Your task to perform on an android device: change notification settings in the gmail app Image 0: 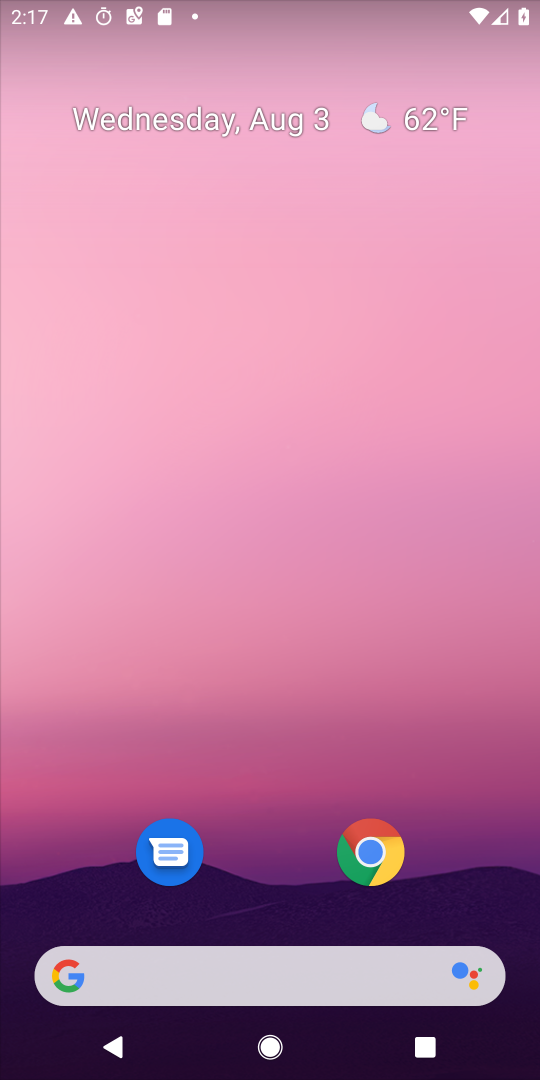
Step 0: drag from (511, 883) to (95, 69)
Your task to perform on an android device: change notification settings in the gmail app Image 1: 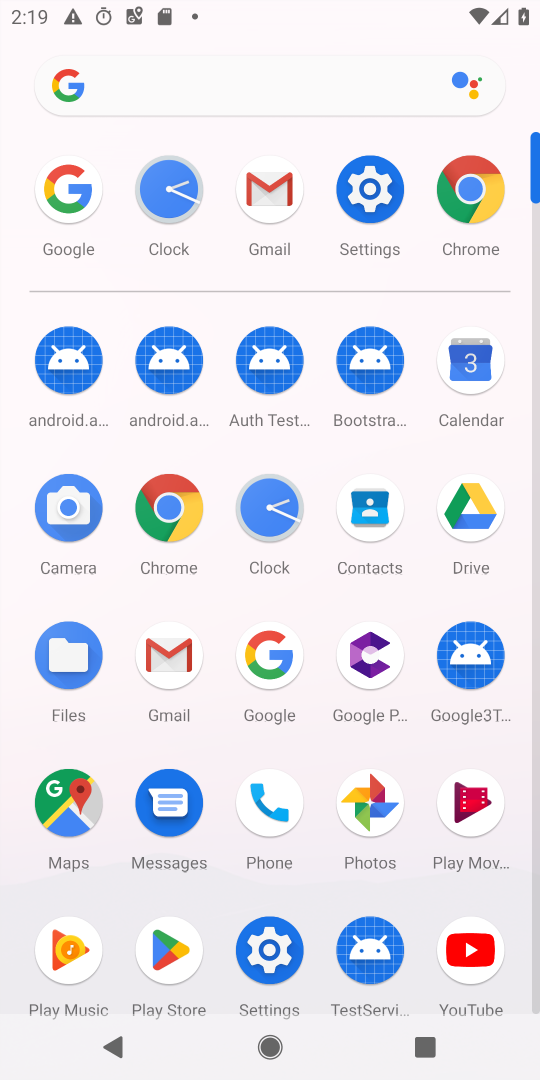
Step 1: click (181, 666)
Your task to perform on an android device: change notification settings in the gmail app Image 2: 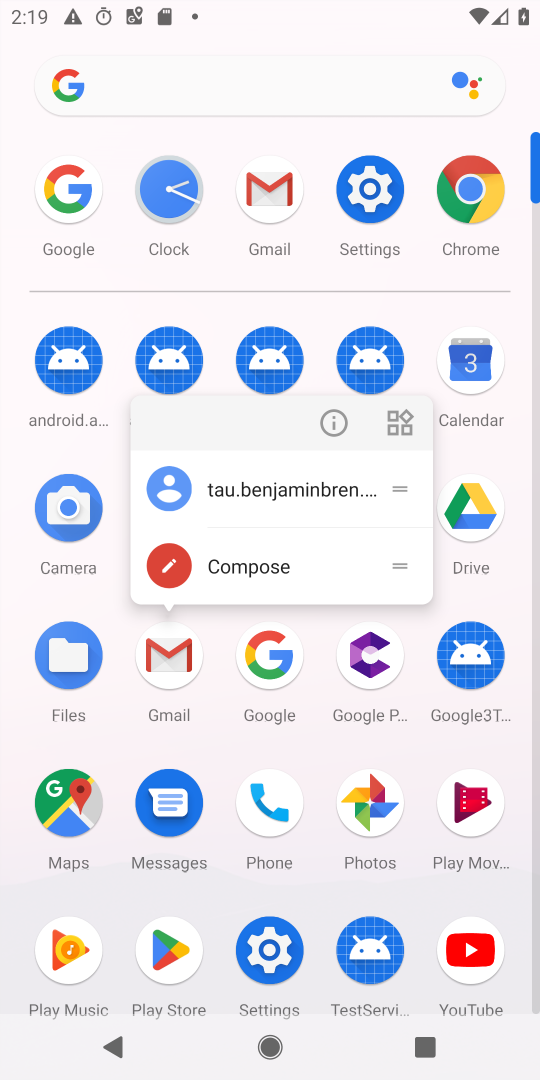
Step 2: click (181, 666)
Your task to perform on an android device: change notification settings in the gmail app Image 3: 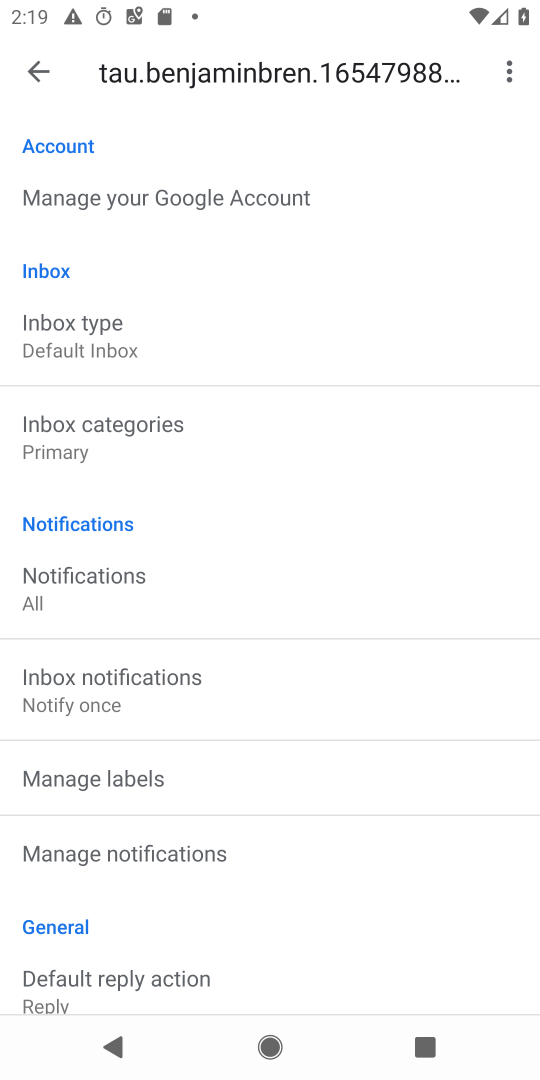
Step 3: click (90, 595)
Your task to perform on an android device: change notification settings in the gmail app Image 4: 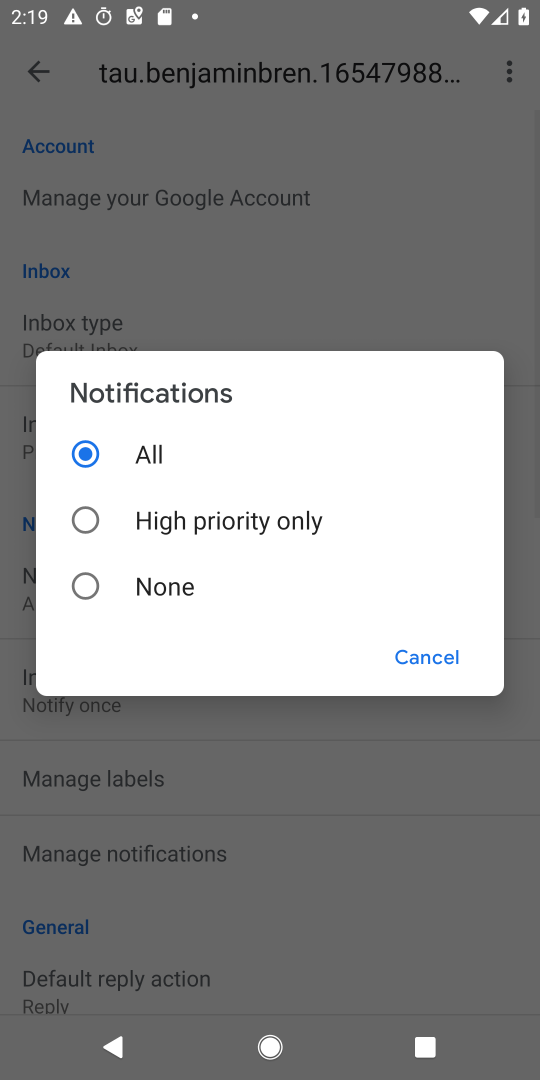
Step 4: click (128, 526)
Your task to perform on an android device: change notification settings in the gmail app Image 5: 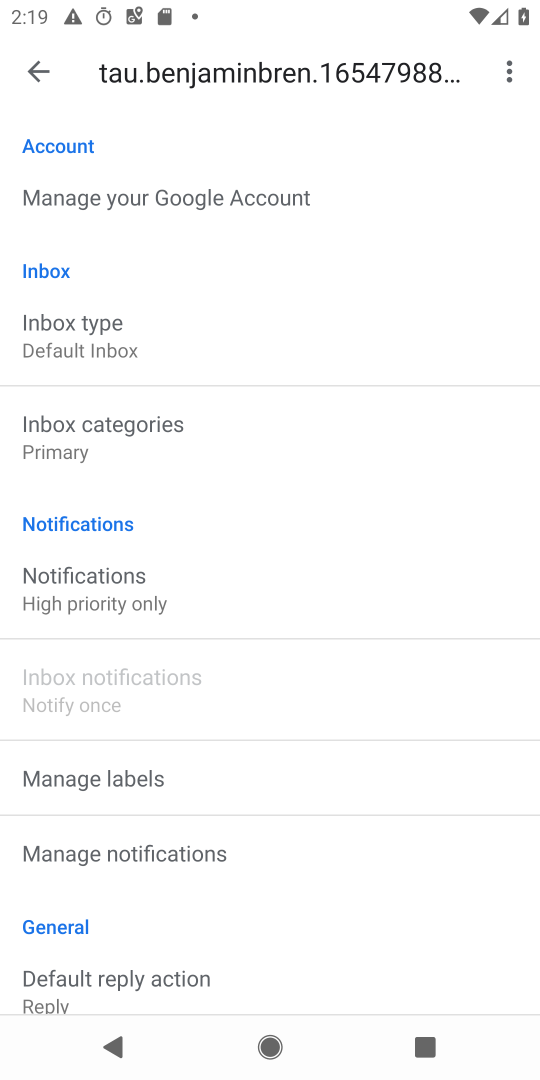
Step 5: task complete